Your task to perform on an android device: Open my contact list Image 0: 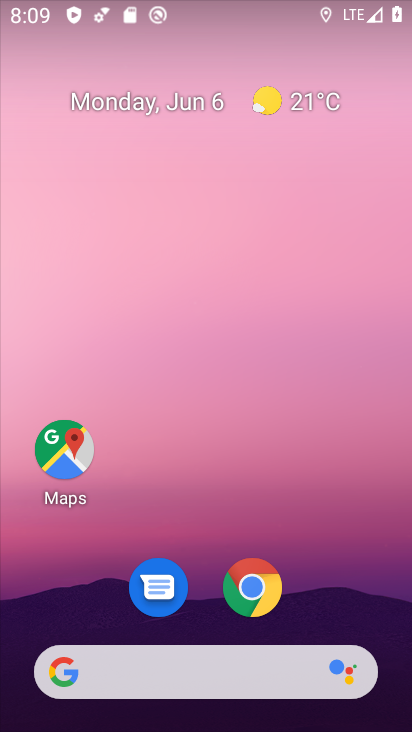
Step 0: drag from (296, 289) to (296, 163)
Your task to perform on an android device: Open my contact list Image 1: 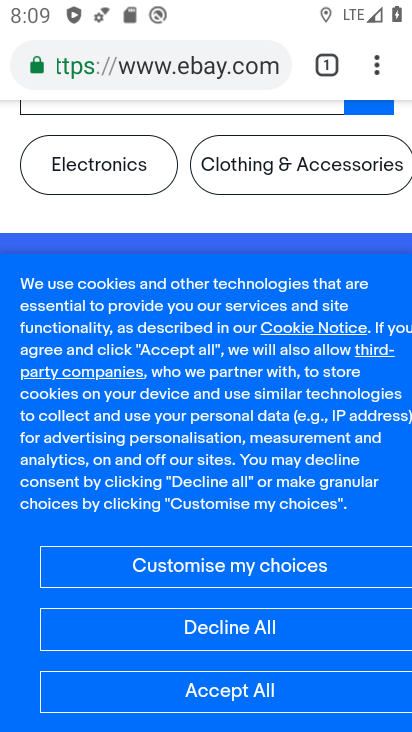
Step 1: press home button
Your task to perform on an android device: Open my contact list Image 2: 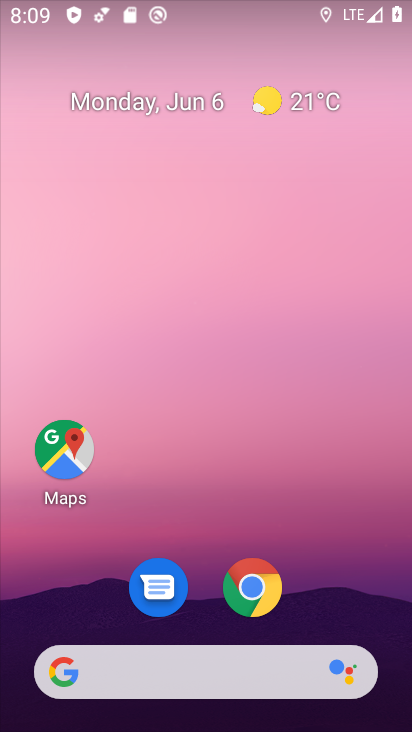
Step 2: drag from (372, 458) to (368, 354)
Your task to perform on an android device: Open my contact list Image 3: 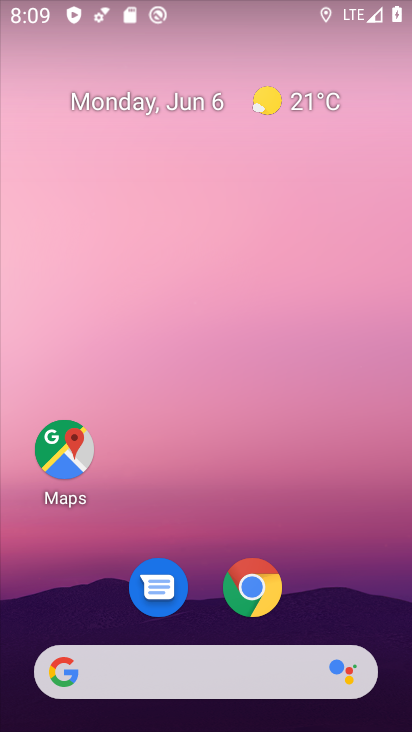
Step 3: drag from (344, 516) to (303, 135)
Your task to perform on an android device: Open my contact list Image 4: 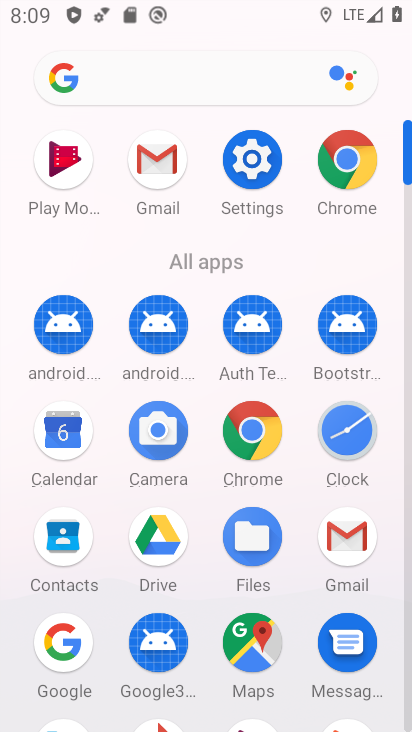
Step 4: drag from (298, 548) to (310, 225)
Your task to perform on an android device: Open my contact list Image 5: 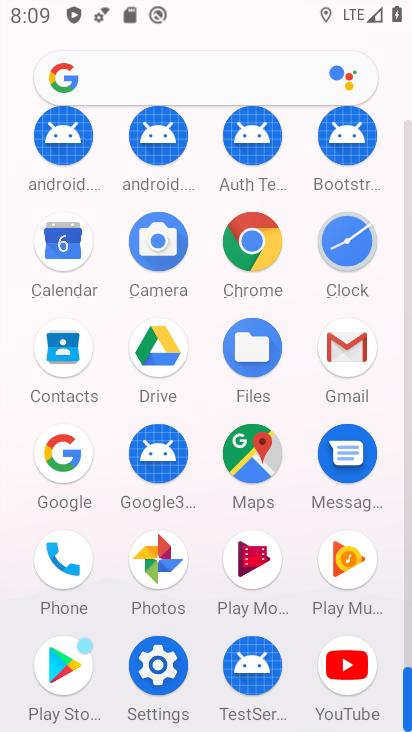
Step 5: click (67, 355)
Your task to perform on an android device: Open my contact list Image 6: 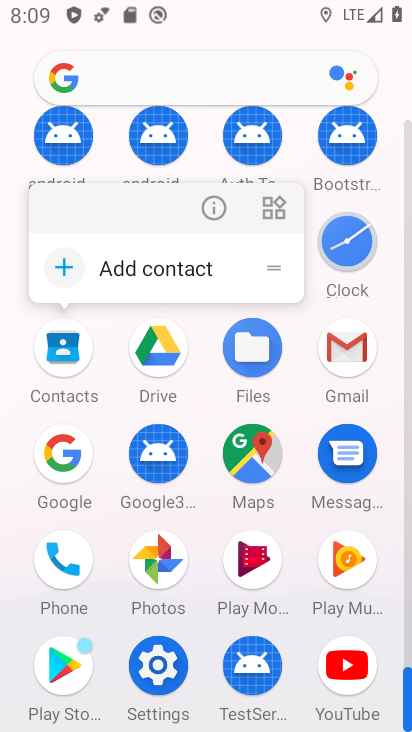
Step 6: click (67, 354)
Your task to perform on an android device: Open my contact list Image 7: 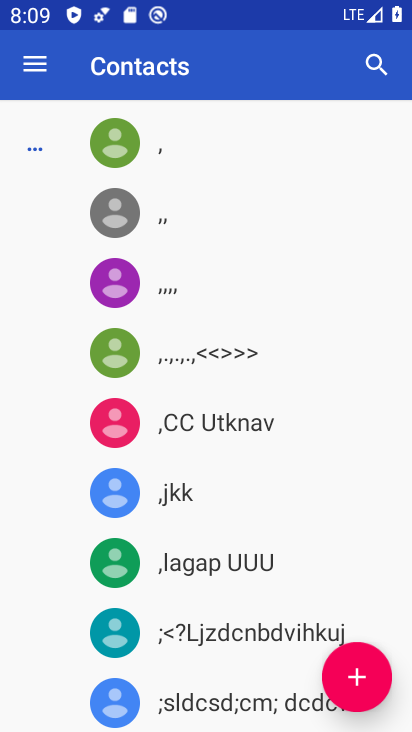
Step 7: task complete